Your task to perform on an android device: Find coffee shops on Maps Image 0: 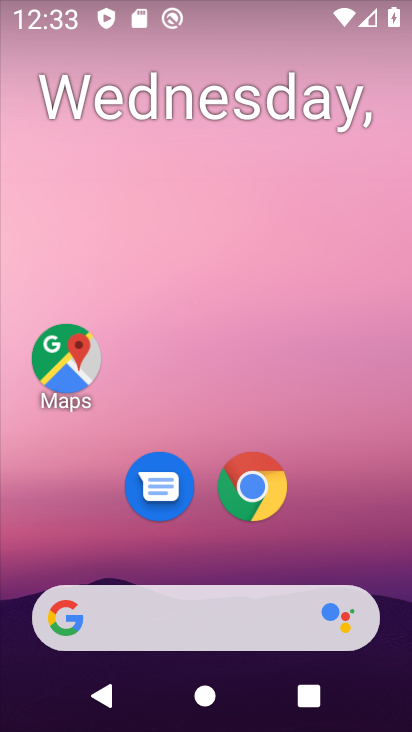
Step 0: drag from (387, 513) to (347, 71)
Your task to perform on an android device: Find coffee shops on Maps Image 1: 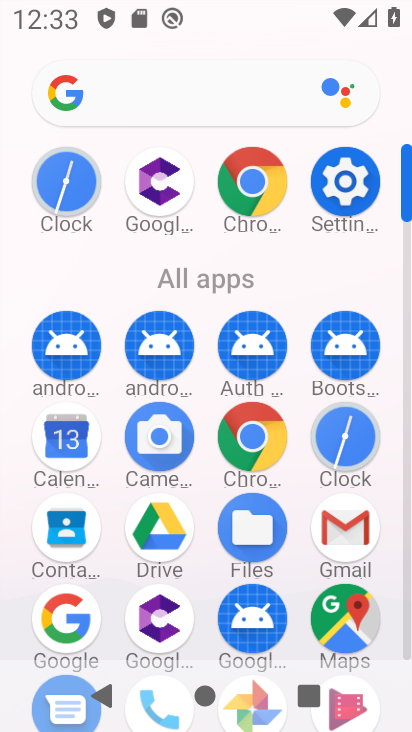
Step 1: drag from (379, 497) to (386, 307)
Your task to perform on an android device: Find coffee shops on Maps Image 2: 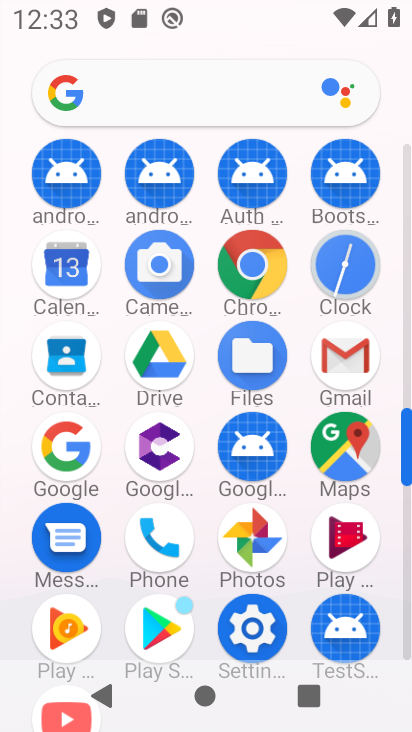
Step 2: click (365, 456)
Your task to perform on an android device: Find coffee shops on Maps Image 3: 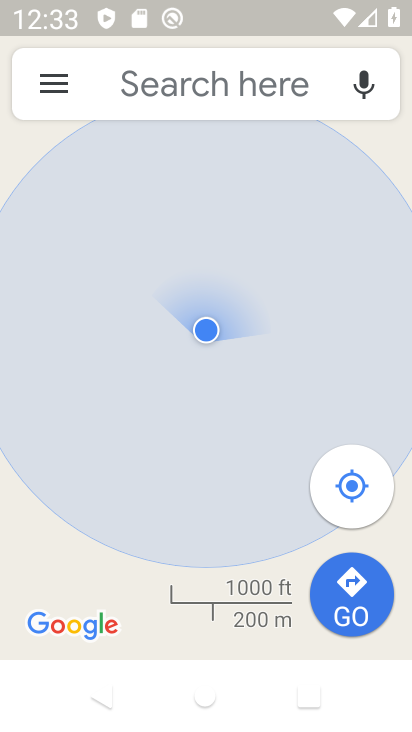
Step 3: click (265, 90)
Your task to perform on an android device: Find coffee shops on Maps Image 4: 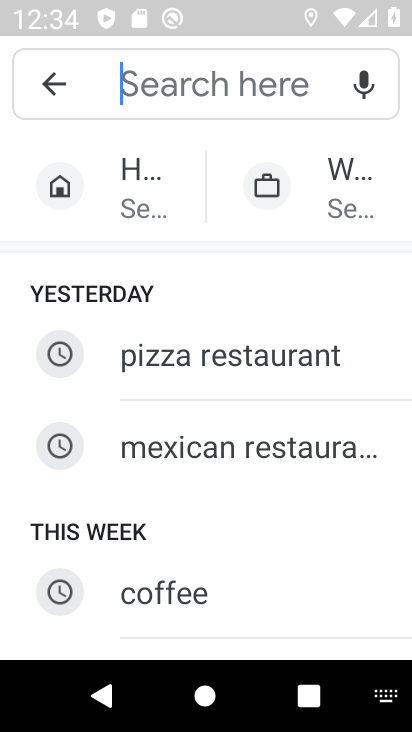
Step 4: type "coffe shops"
Your task to perform on an android device: Find coffee shops on Maps Image 5: 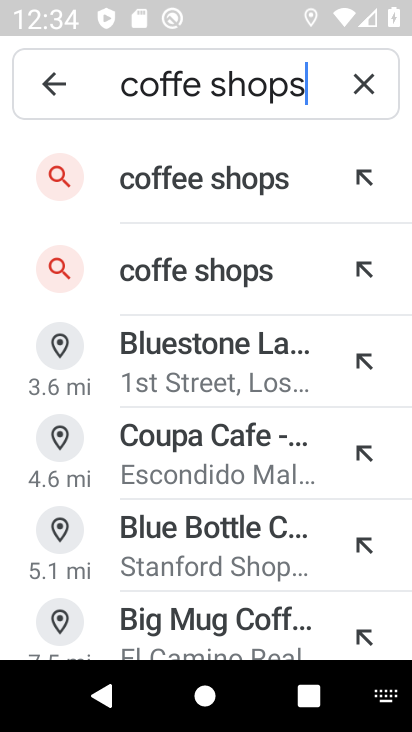
Step 5: click (252, 194)
Your task to perform on an android device: Find coffee shops on Maps Image 6: 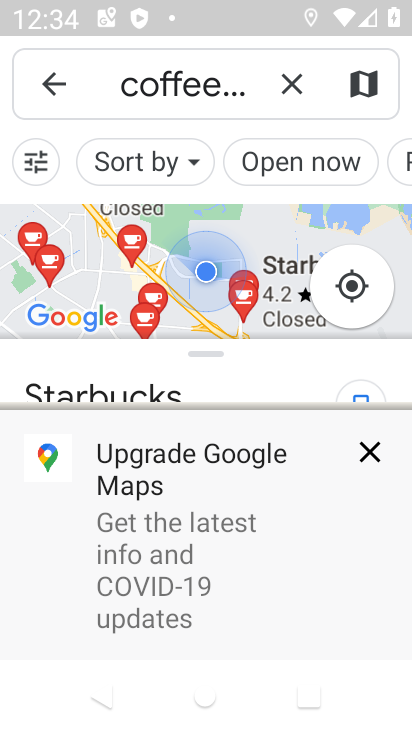
Step 6: task complete